Your task to perform on an android device: clear all cookies in the chrome app Image 0: 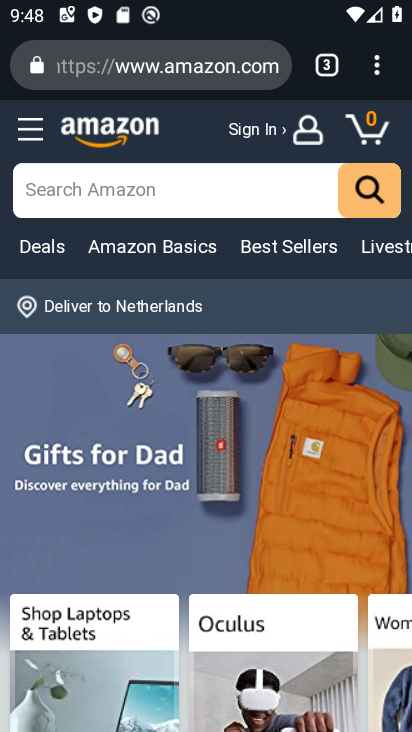
Step 0: click (377, 75)
Your task to perform on an android device: clear all cookies in the chrome app Image 1: 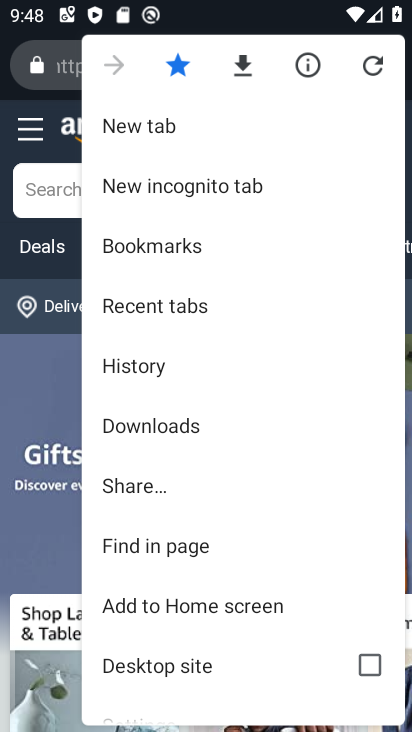
Step 1: click (180, 356)
Your task to perform on an android device: clear all cookies in the chrome app Image 2: 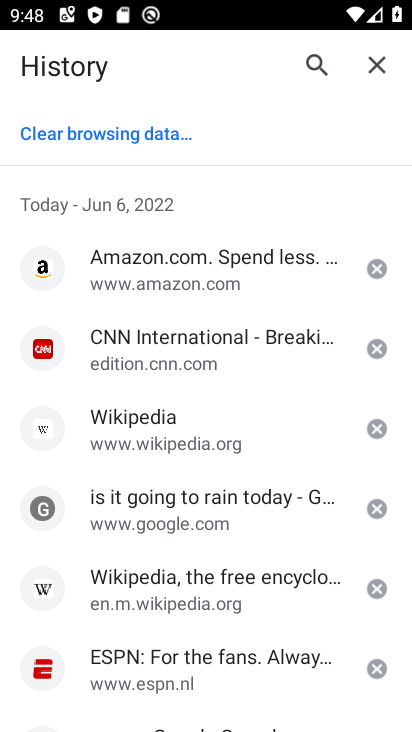
Step 2: click (125, 137)
Your task to perform on an android device: clear all cookies in the chrome app Image 3: 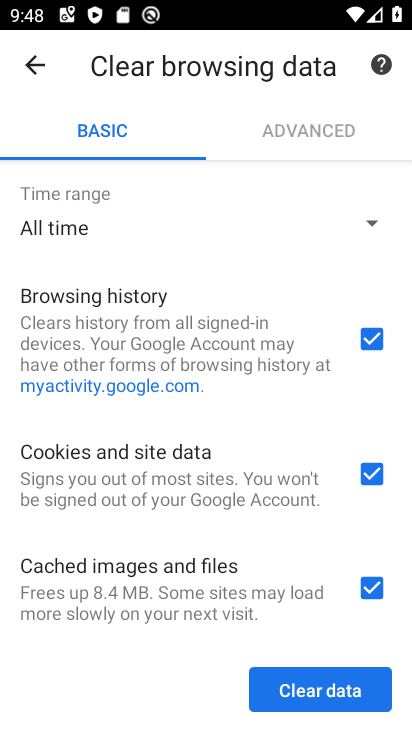
Step 3: click (312, 684)
Your task to perform on an android device: clear all cookies in the chrome app Image 4: 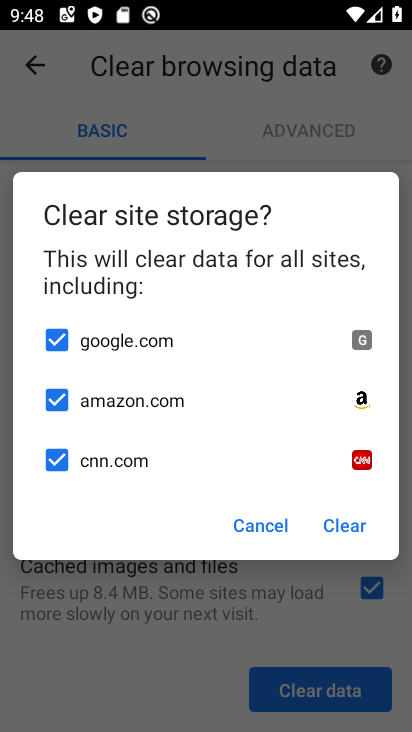
Step 4: click (338, 530)
Your task to perform on an android device: clear all cookies in the chrome app Image 5: 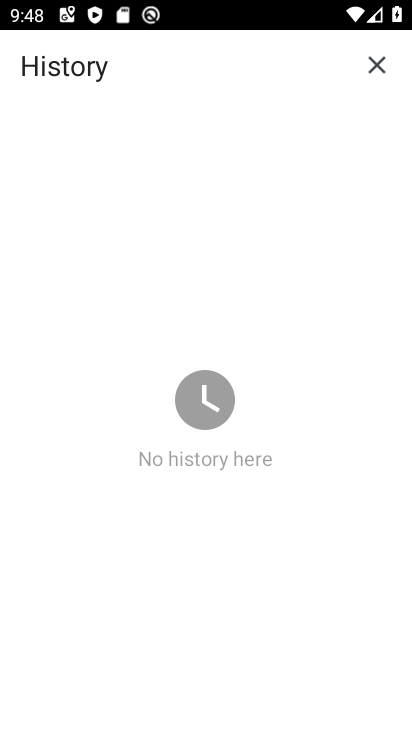
Step 5: task complete